Your task to perform on an android device: Check the news Image 0: 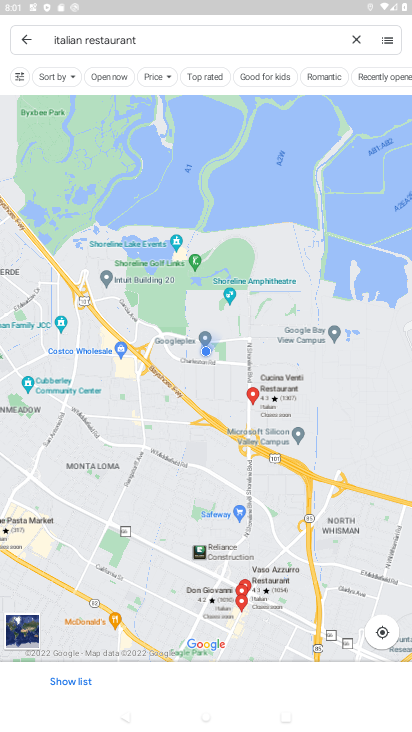
Step 0: press home button
Your task to perform on an android device: Check the news Image 1: 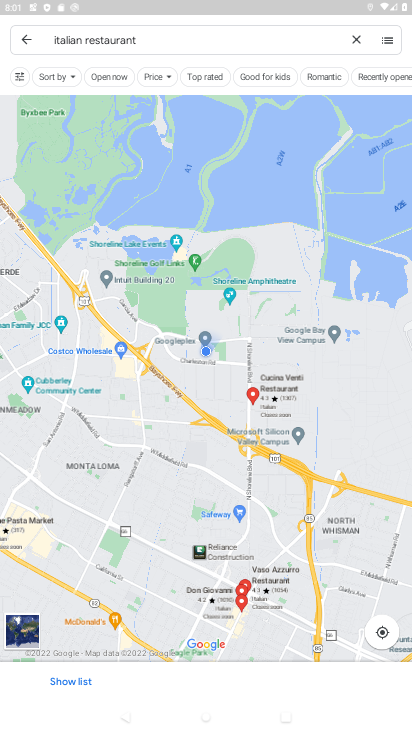
Step 1: press home button
Your task to perform on an android device: Check the news Image 2: 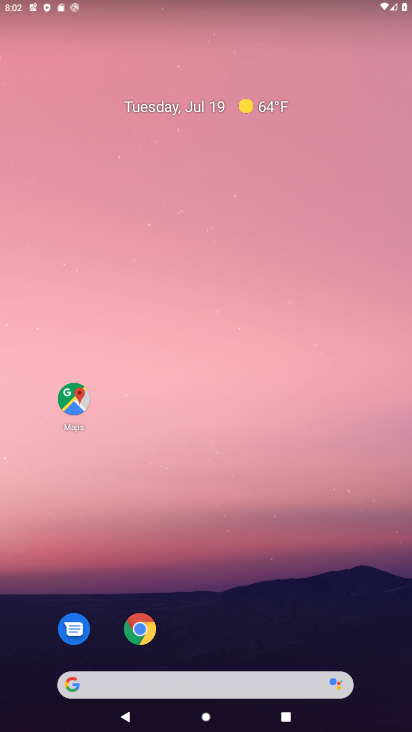
Step 2: drag from (192, 645) to (243, 94)
Your task to perform on an android device: Check the news Image 3: 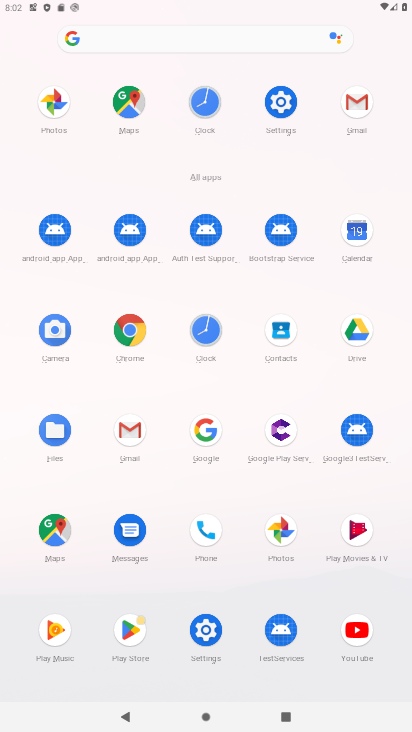
Step 3: click (163, 33)
Your task to perform on an android device: Check the news Image 4: 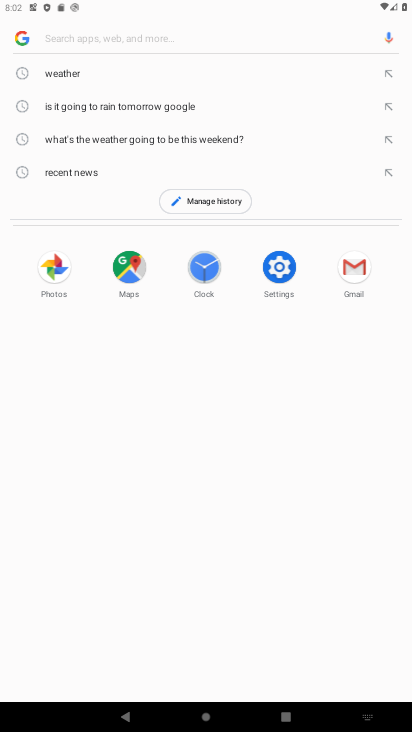
Step 4: type "news"
Your task to perform on an android device: Check the news Image 5: 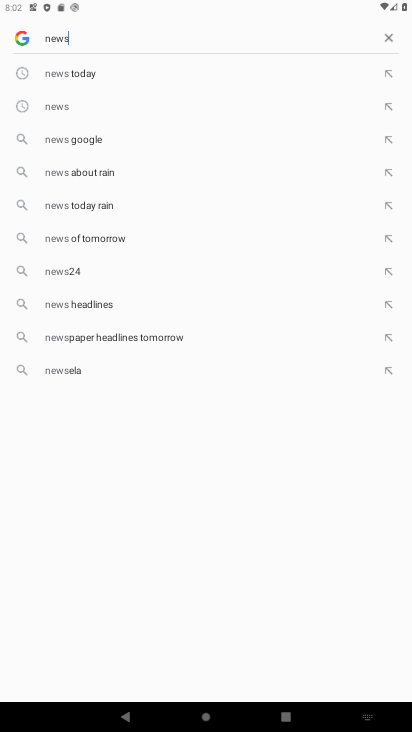
Step 5: click (113, 107)
Your task to perform on an android device: Check the news Image 6: 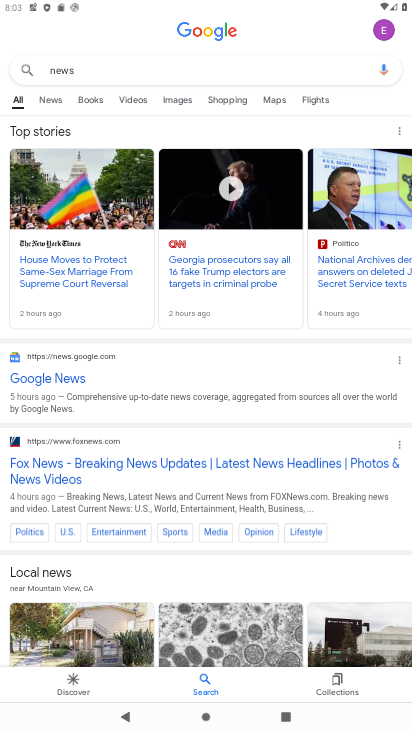
Step 6: task complete